Your task to perform on an android device: Open Google Chrome and click the shortcut for Amazon.com Image 0: 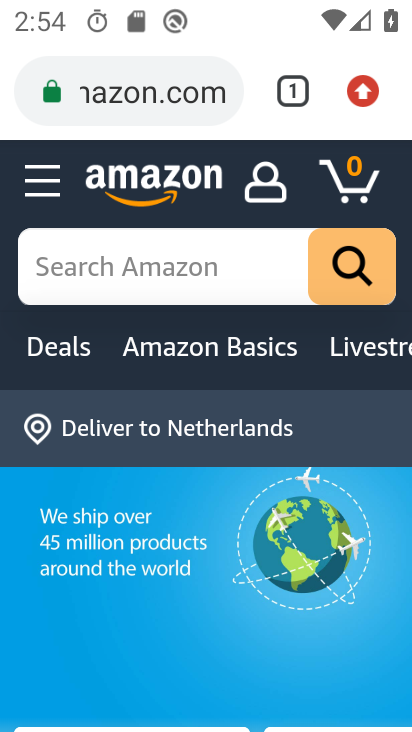
Step 0: task complete